Your task to perform on an android device: Play the last video I watched on Youtube Image 0: 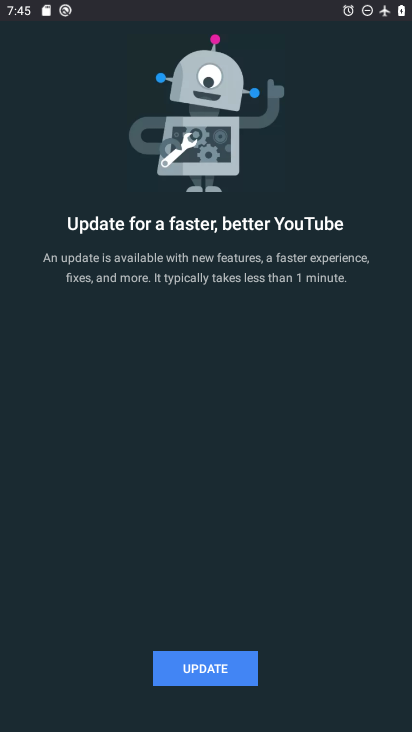
Step 0: press home button
Your task to perform on an android device: Play the last video I watched on Youtube Image 1: 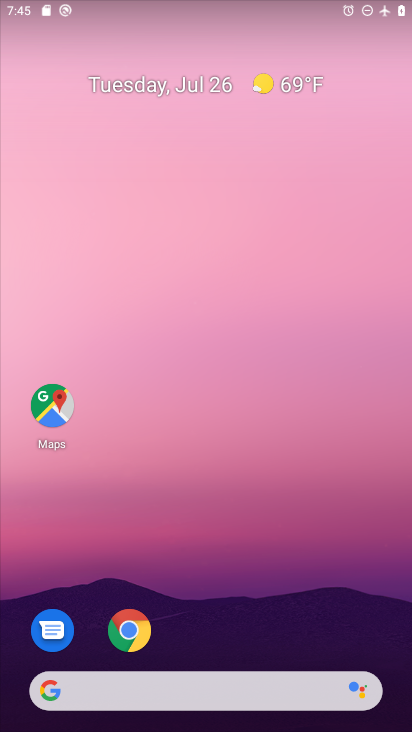
Step 1: drag from (270, 616) to (269, 2)
Your task to perform on an android device: Play the last video I watched on Youtube Image 2: 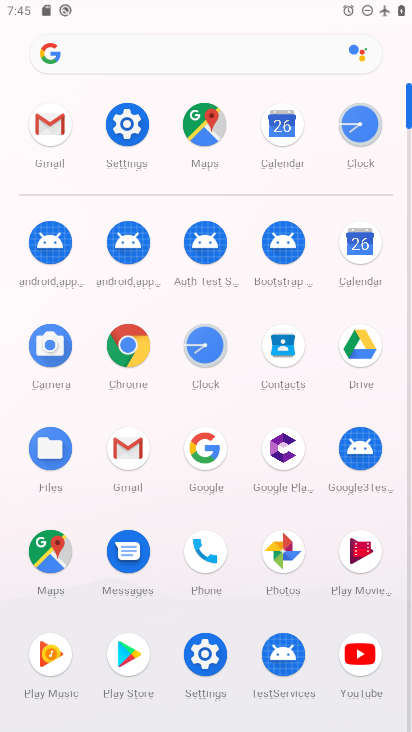
Step 2: click (355, 658)
Your task to perform on an android device: Play the last video I watched on Youtube Image 3: 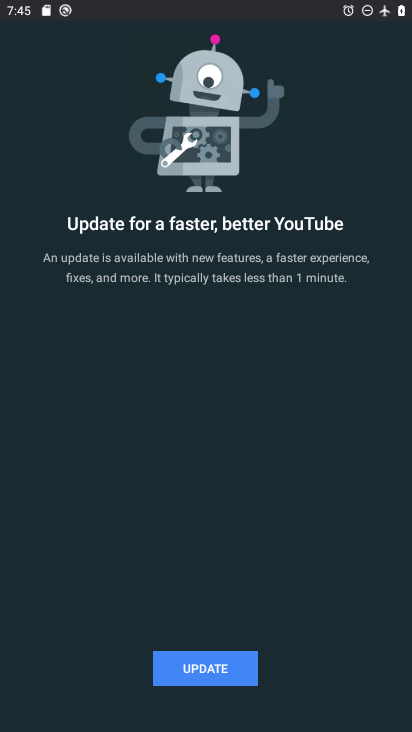
Step 3: click (220, 670)
Your task to perform on an android device: Play the last video I watched on Youtube Image 4: 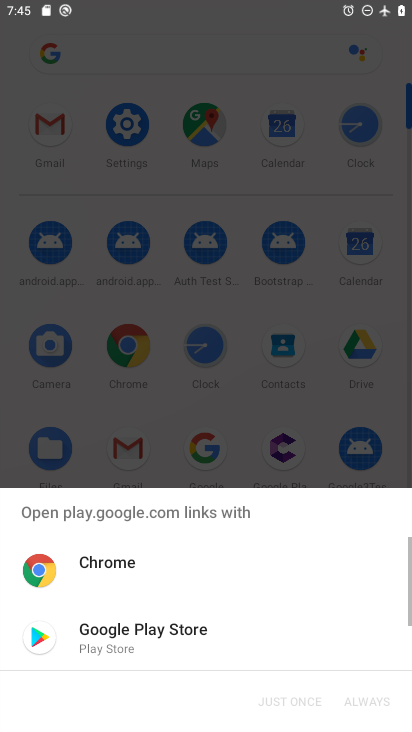
Step 4: click (210, 630)
Your task to perform on an android device: Play the last video I watched on Youtube Image 5: 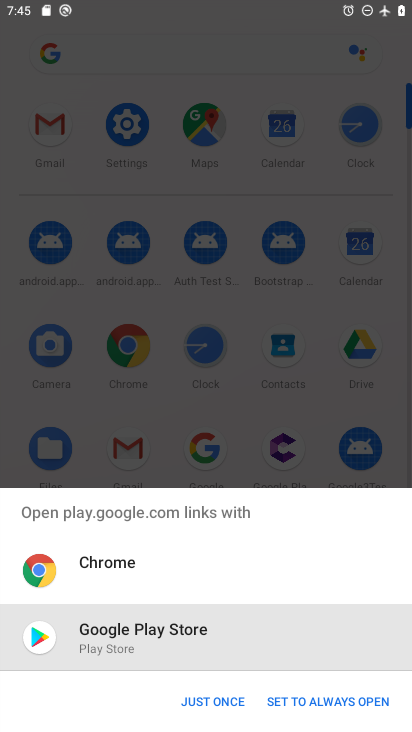
Step 5: click (228, 704)
Your task to perform on an android device: Play the last video I watched on Youtube Image 6: 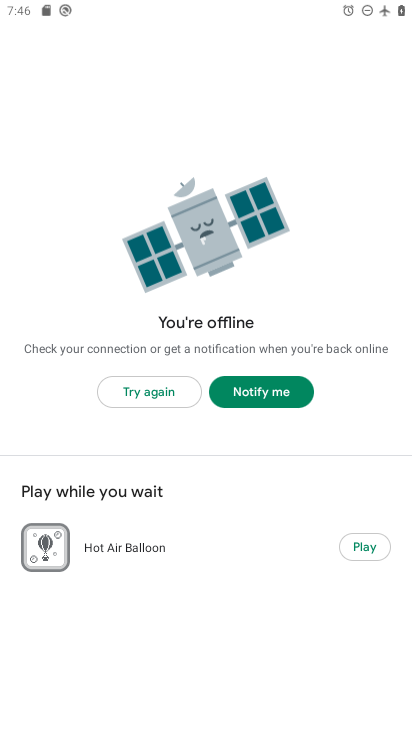
Step 6: task complete